Your task to perform on an android device: Go to wifi settings Image 0: 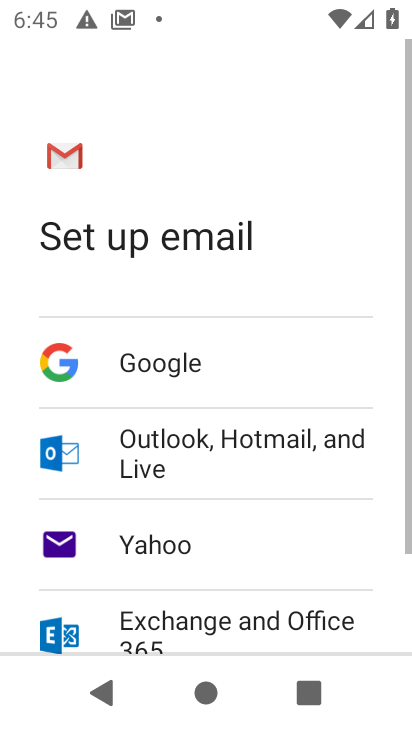
Step 0: task complete